Your task to perform on an android device: toggle javascript in the chrome app Image 0: 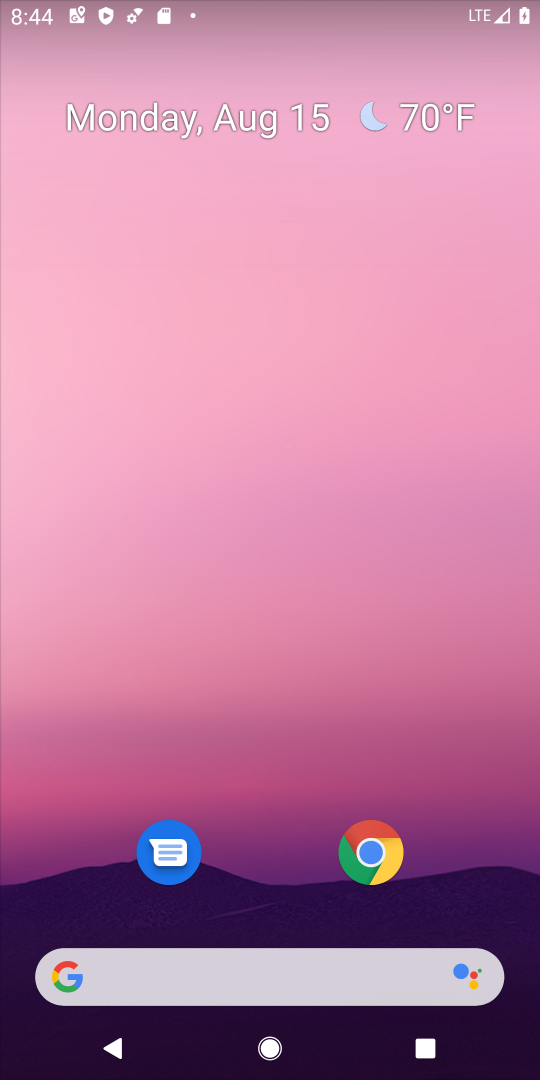
Step 0: click (370, 850)
Your task to perform on an android device: toggle javascript in the chrome app Image 1: 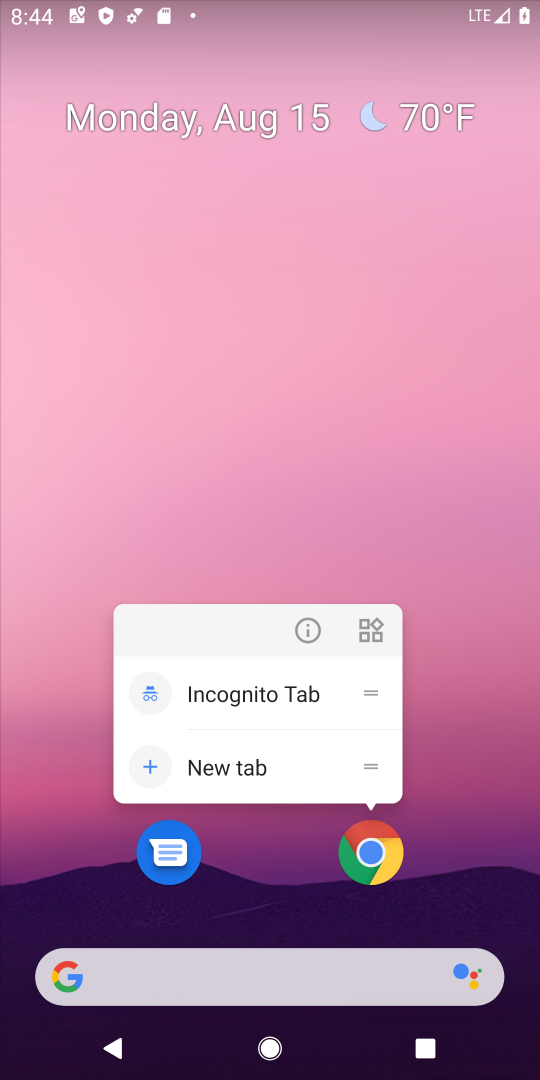
Step 1: click (370, 850)
Your task to perform on an android device: toggle javascript in the chrome app Image 2: 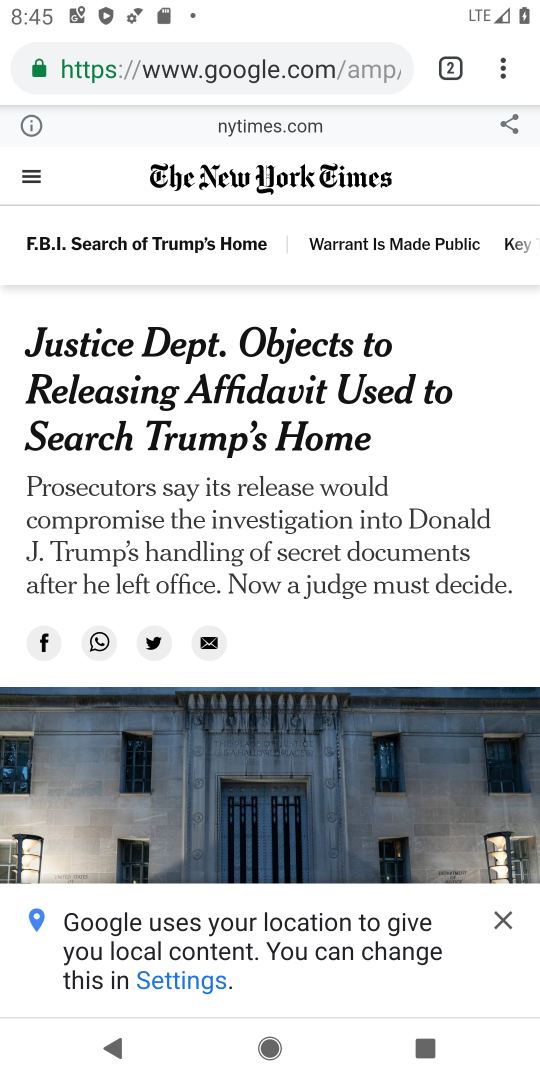
Step 2: click (514, 65)
Your task to perform on an android device: toggle javascript in the chrome app Image 3: 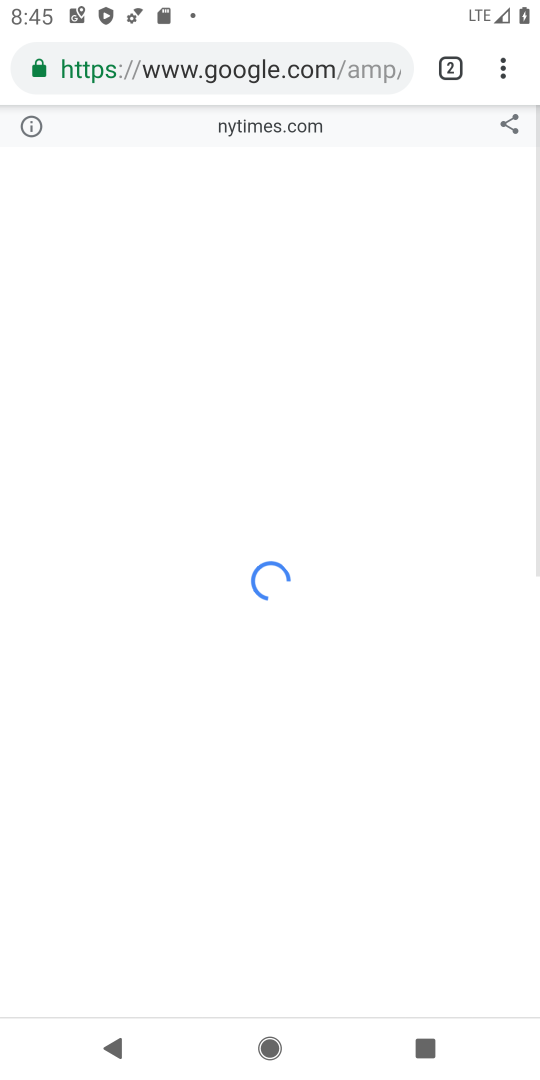
Step 3: drag from (500, 72) to (301, 825)
Your task to perform on an android device: toggle javascript in the chrome app Image 4: 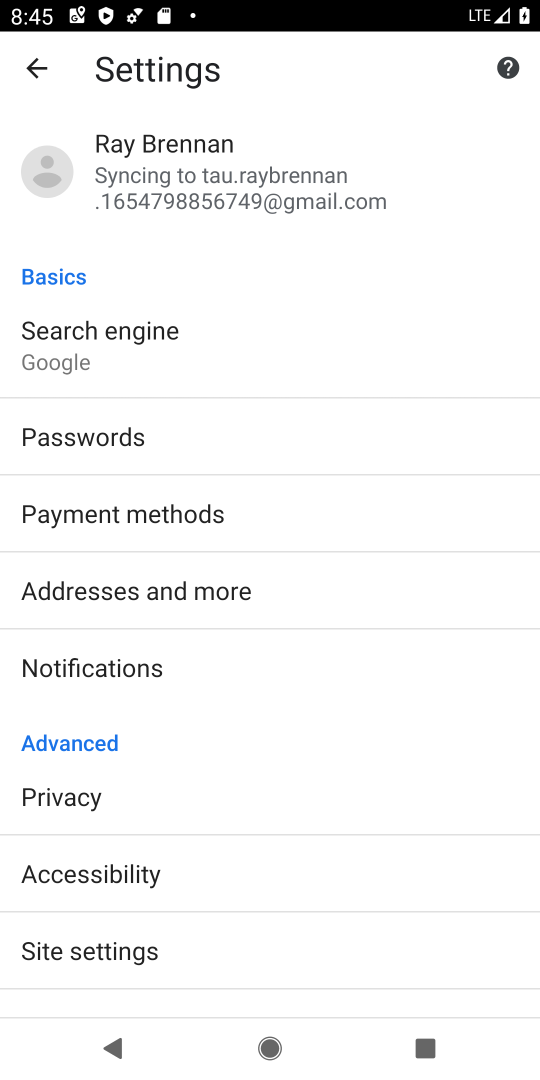
Step 4: drag from (153, 779) to (276, 494)
Your task to perform on an android device: toggle javascript in the chrome app Image 5: 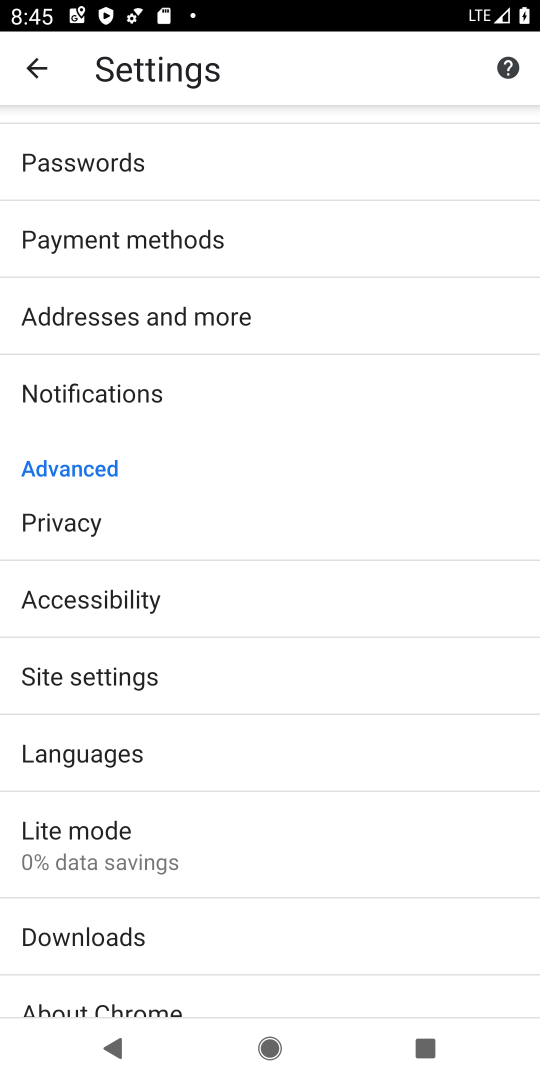
Step 5: click (141, 680)
Your task to perform on an android device: toggle javascript in the chrome app Image 6: 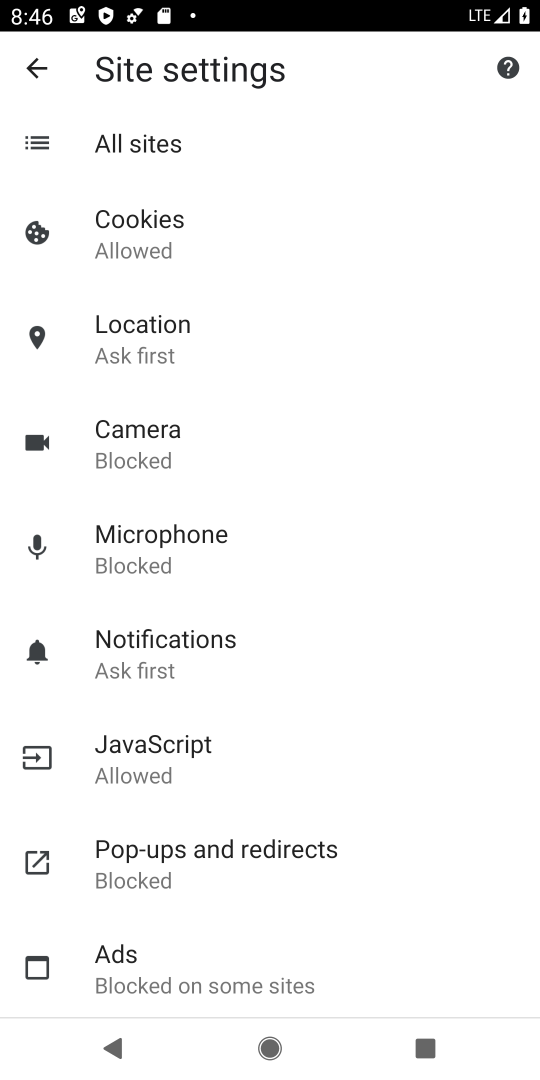
Step 6: click (122, 751)
Your task to perform on an android device: toggle javascript in the chrome app Image 7: 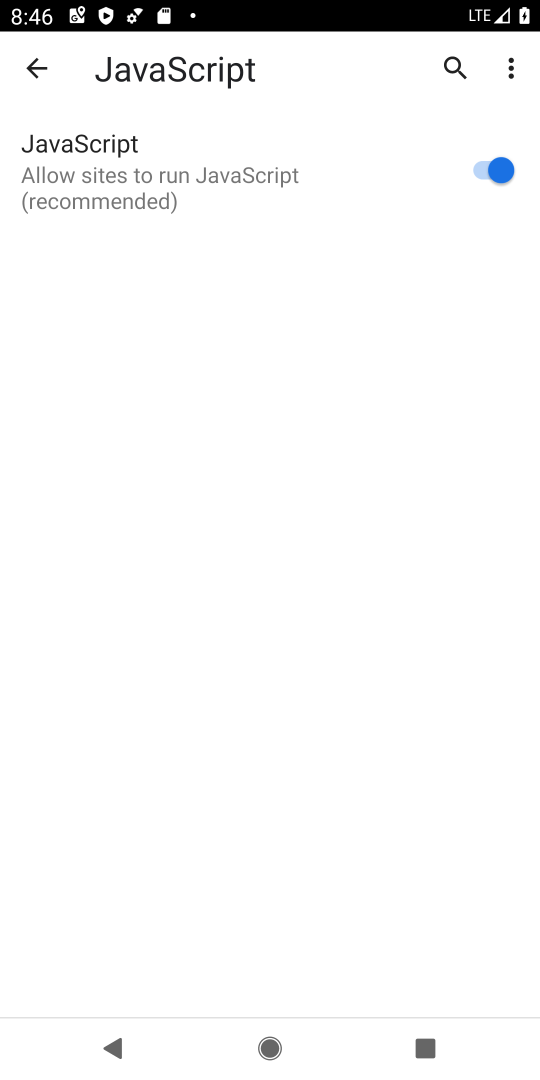
Step 7: click (478, 175)
Your task to perform on an android device: toggle javascript in the chrome app Image 8: 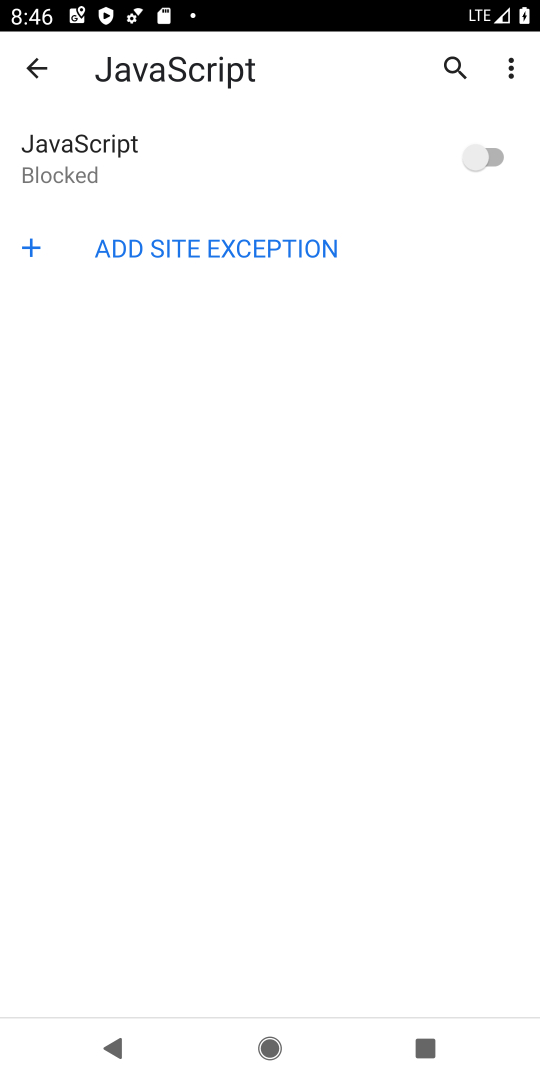
Step 8: task complete